Your task to perform on an android device: What's on my calendar tomorrow? Image 0: 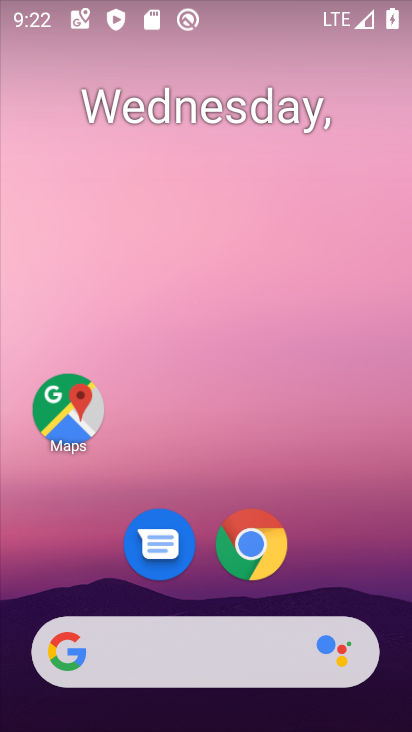
Step 0: click (171, 125)
Your task to perform on an android device: What's on my calendar tomorrow? Image 1: 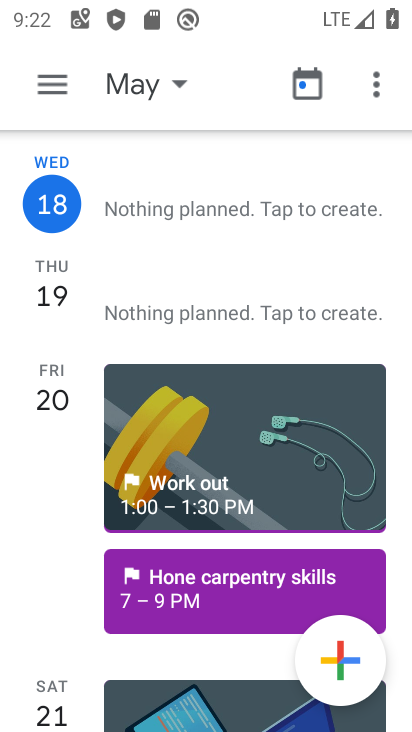
Step 1: click (158, 107)
Your task to perform on an android device: What's on my calendar tomorrow? Image 2: 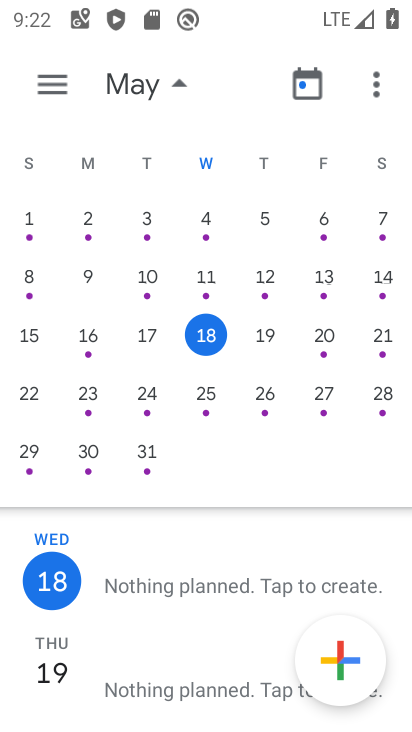
Step 2: click (261, 344)
Your task to perform on an android device: What's on my calendar tomorrow? Image 3: 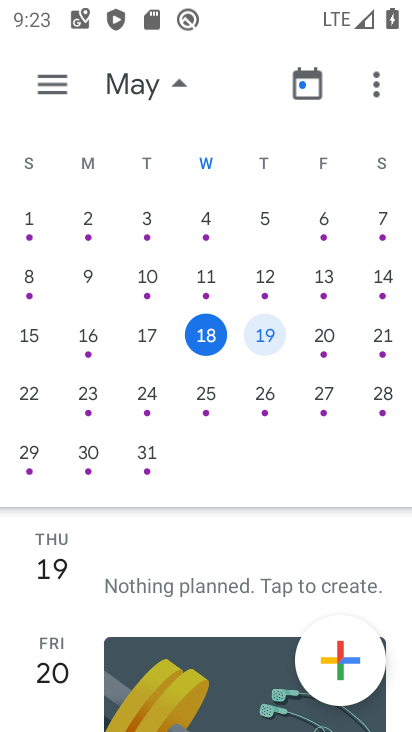
Step 3: task complete